Your task to perform on an android device: Go to display settings Image 0: 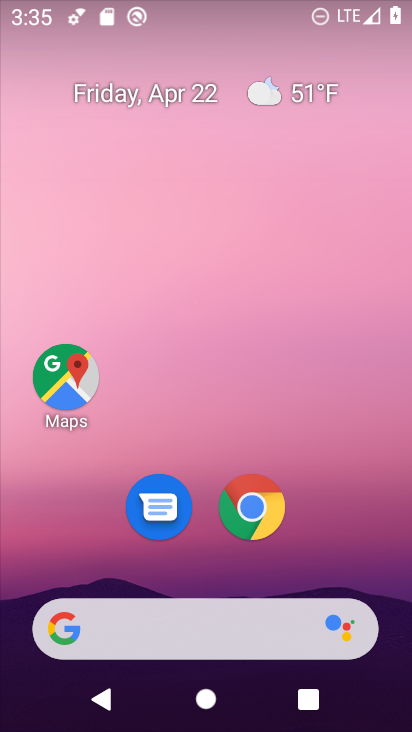
Step 0: drag from (192, 572) to (185, 82)
Your task to perform on an android device: Go to display settings Image 1: 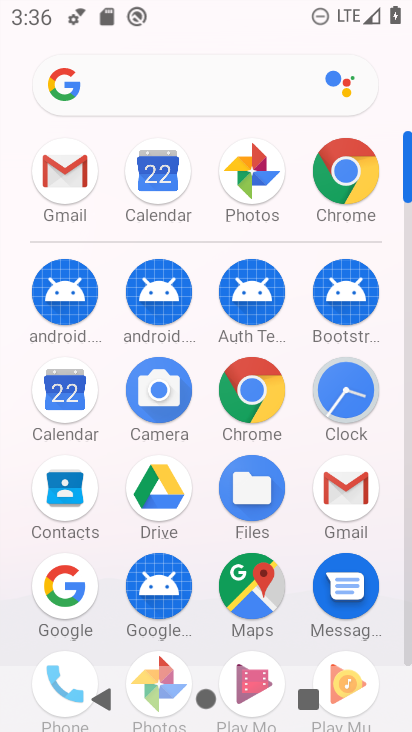
Step 1: drag from (102, 564) to (166, 198)
Your task to perform on an android device: Go to display settings Image 2: 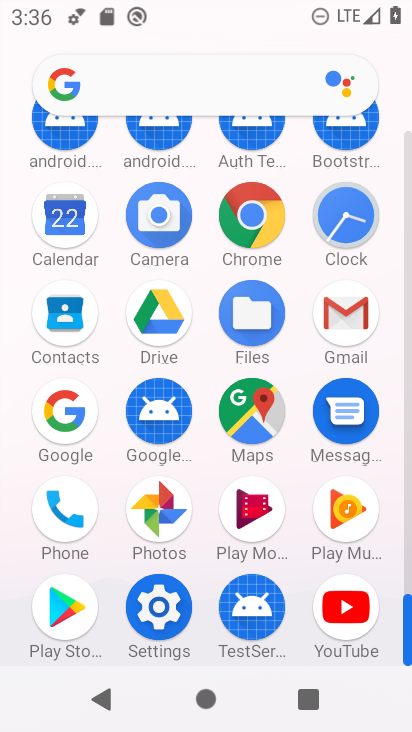
Step 2: click (149, 609)
Your task to perform on an android device: Go to display settings Image 3: 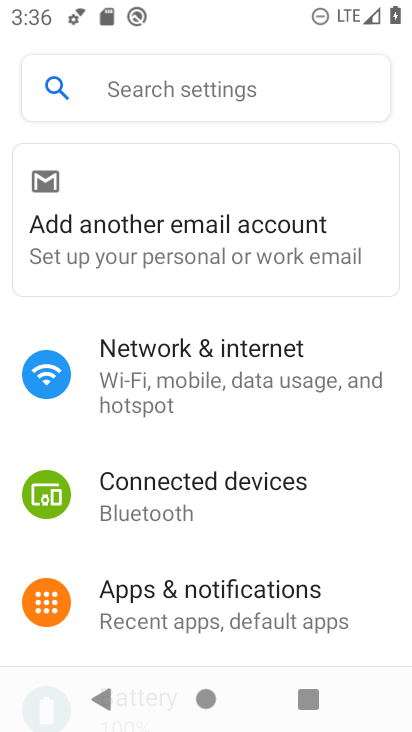
Step 3: drag from (263, 573) to (221, 38)
Your task to perform on an android device: Go to display settings Image 4: 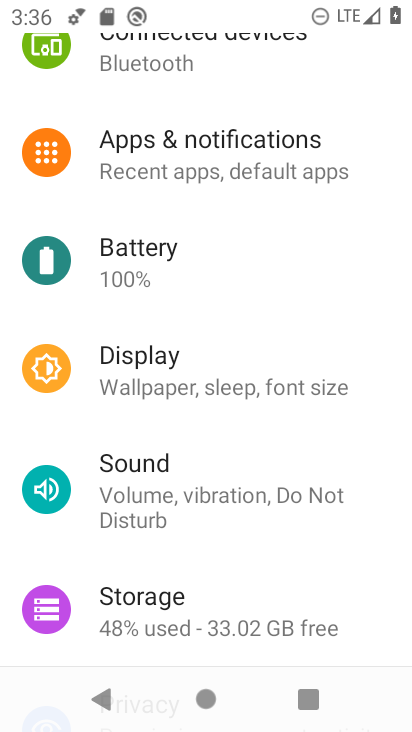
Step 4: drag from (217, 602) to (231, 271)
Your task to perform on an android device: Go to display settings Image 5: 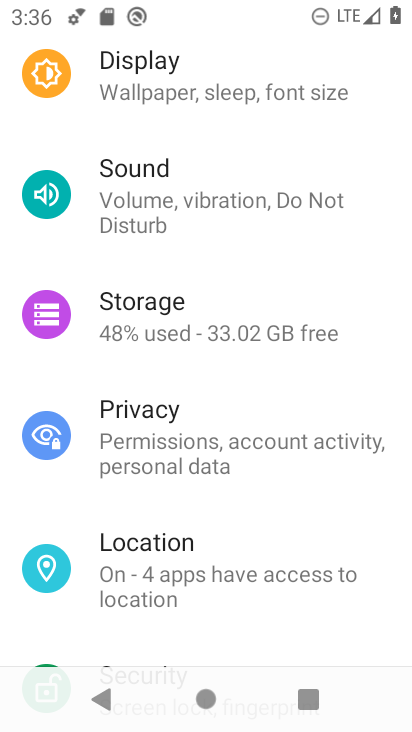
Step 5: click (112, 88)
Your task to perform on an android device: Go to display settings Image 6: 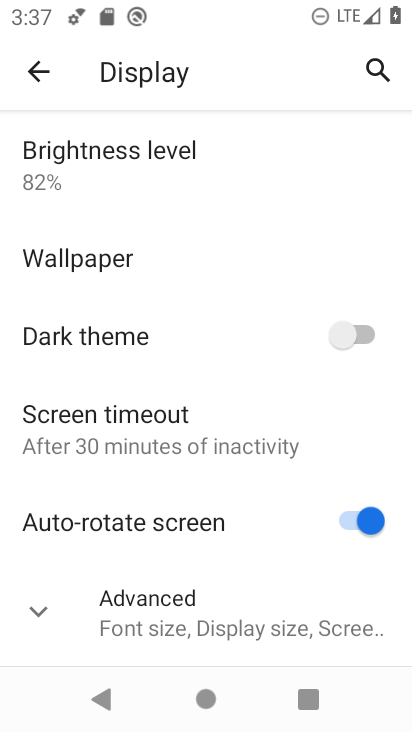
Step 6: task complete